Your task to perform on an android device: open sync settings in chrome Image 0: 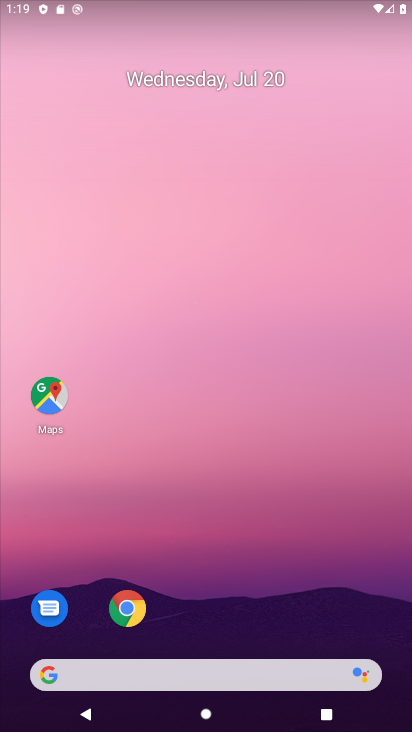
Step 0: drag from (221, 628) to (243, 131)
Your task to perform on an android device: open sync settings in chrome Image 1: 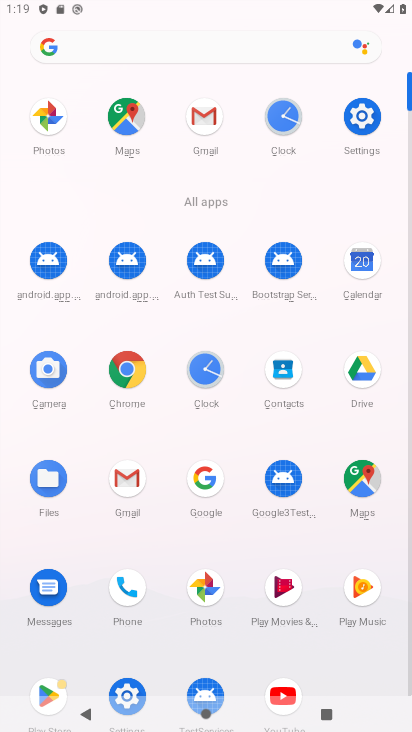
Step 1: click (132, 379)
Your task to perform on an android device: open sync settings in chrome Image 2: 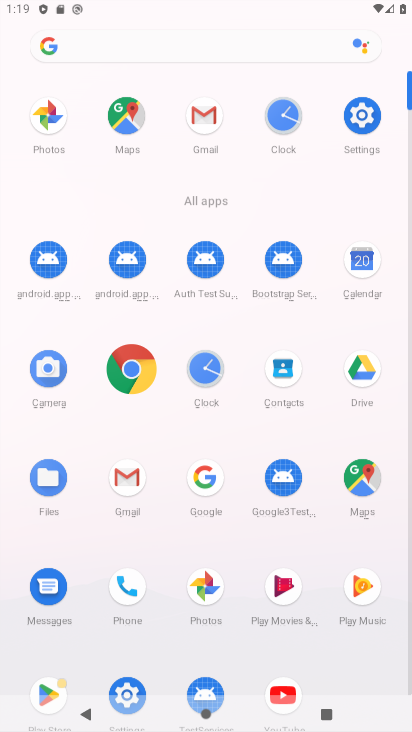
Step 2: task complete